Your task to perform on an android device: Do I have any events this weekend? Image 0: 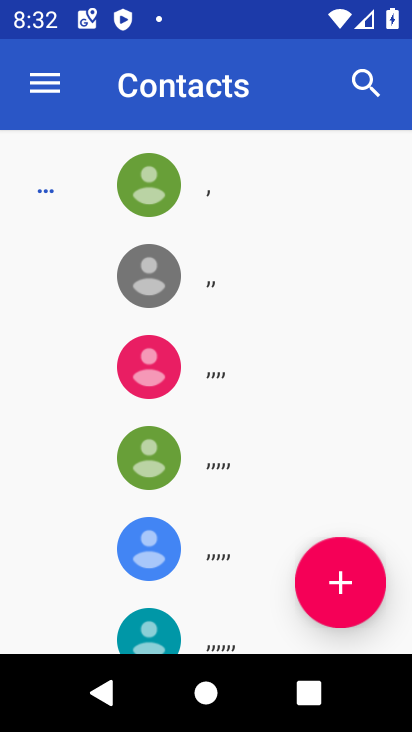
Step 0: press home button
Your task to perform on an android device: Do I have any events this weekend? Image 1: 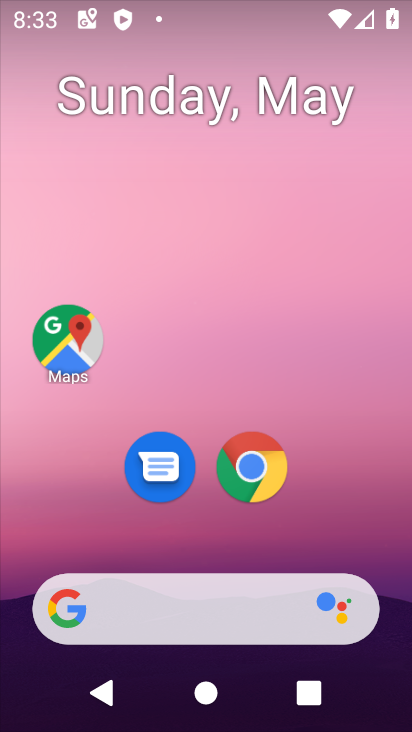
Step 1: click (249, 118)
Your task to perform on an android device: Do I have any events this weekend? Image 2: 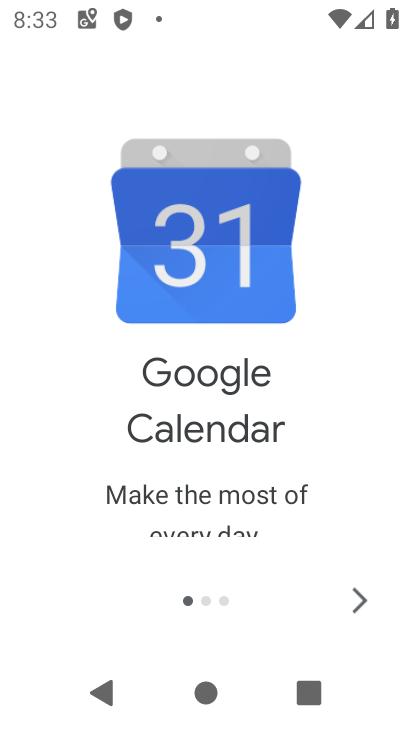
Step 2: click (352, 621)
Your task to perform on an android device: Do I have any events this weekend? Image 3: 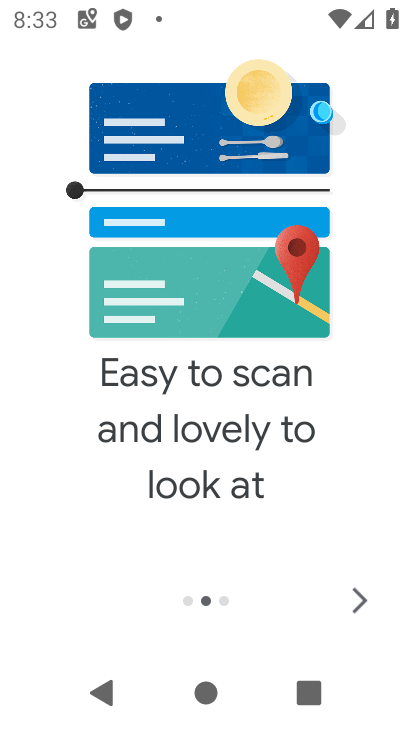
Step 3: click (352, 621)
Your task to perform on an android device: Do I have any events this weekend? Image 4: 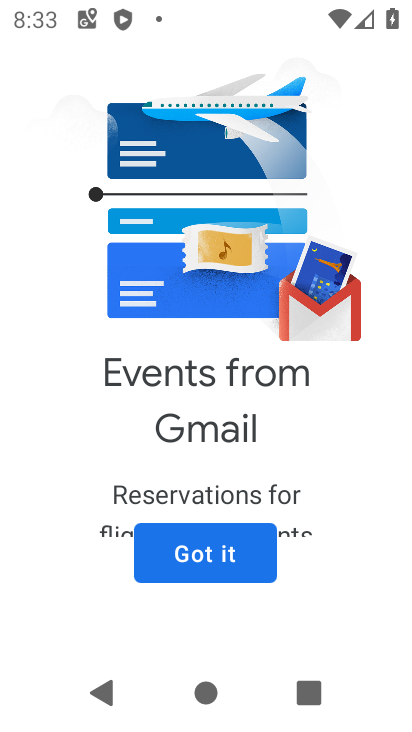
Step 4: click (230, 547)
Your task to perform on an android device: Do I have any events this weekend? Image 5: 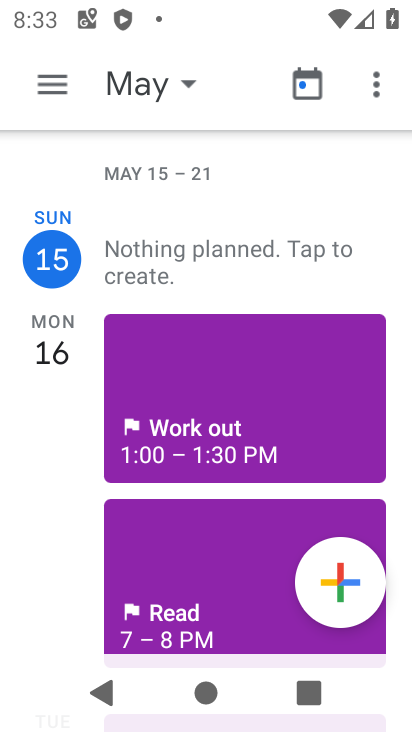
Step 5: click (165, 80)
Your task to perform on an android device: Do I have any events this weekend? Image 6: 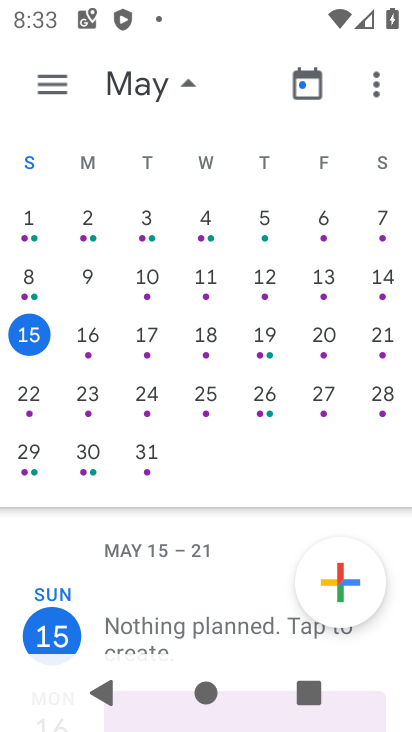
Step 6: click (378, 354)
Your task to perform on an android device: Do I have any events this weekend? Image 7: 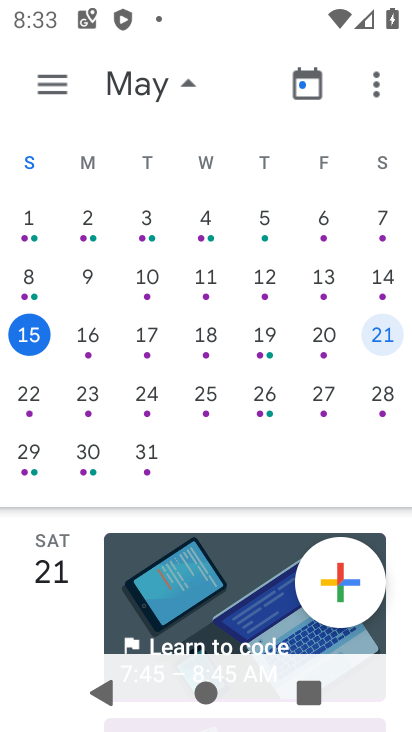
Step 7: drag from (50, 618) to (136, 112)
Your task to perform on an android device: Do I have any events this weekend? Image 8: 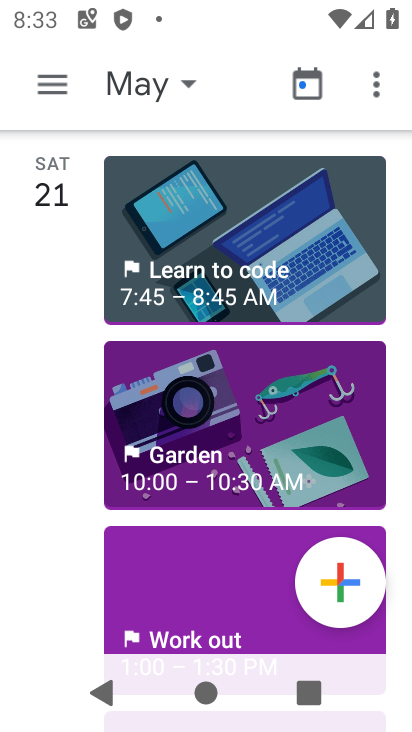
Step 8: click (161, 611)
Your task to perform on an android device: Do I have any events this weekend? Image 9: 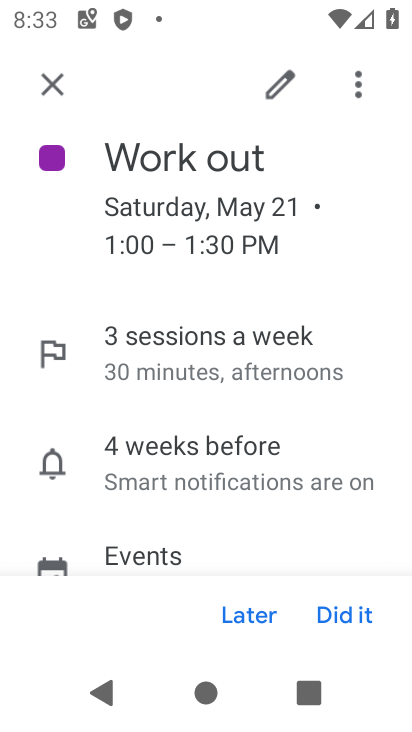
Step 9: task complete